Your task to perform on an android device: Show me popular games on the Play Store Image 0: 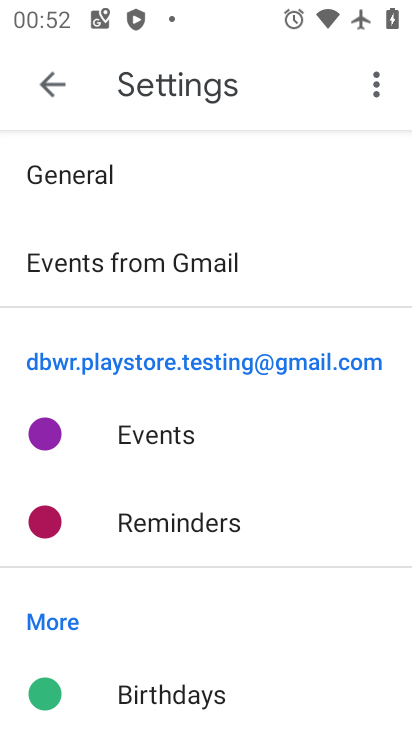
Step 0: press home button
Your task to perform on an android device: Show me popular games on the Play Store Image 1: 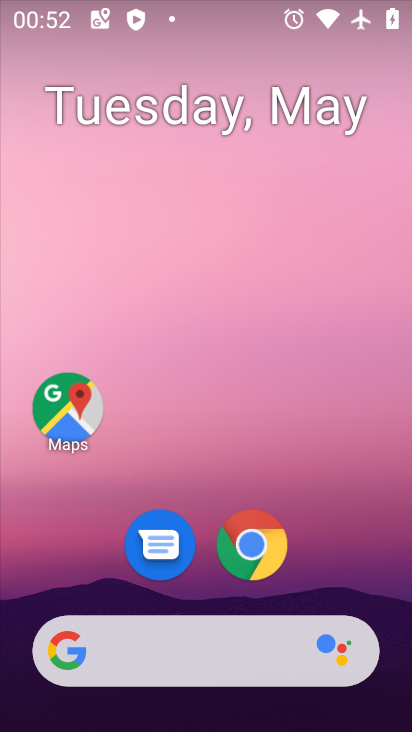
Step 1: drag from (333, 497) to (309, 0)
Your task to perform on an android device: Show me popular games on the Play Store Image 2: 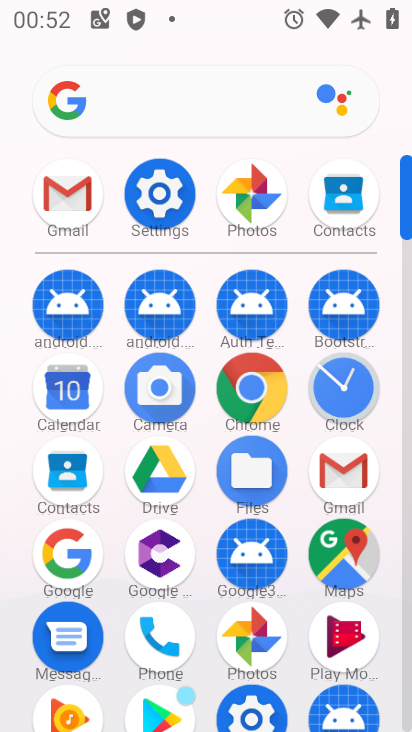
Step 2: click (170, 693)
Your task to perform on an android device: Show me popular games on the Play Store Image 3: 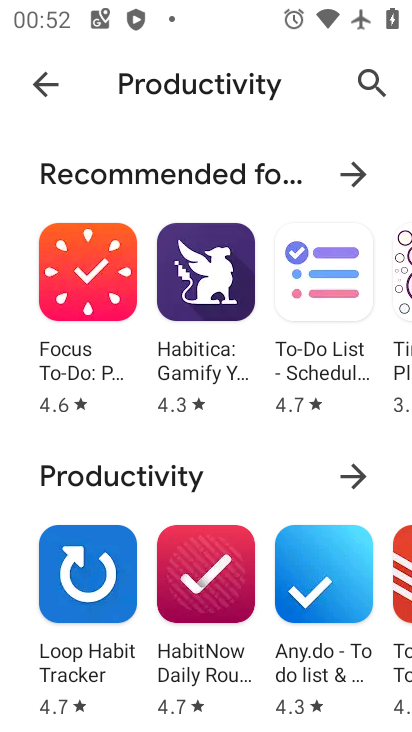
Step 3: click (49, 73)
Your task to perform on an android device: Show me popular games on the Play Store Image 4: 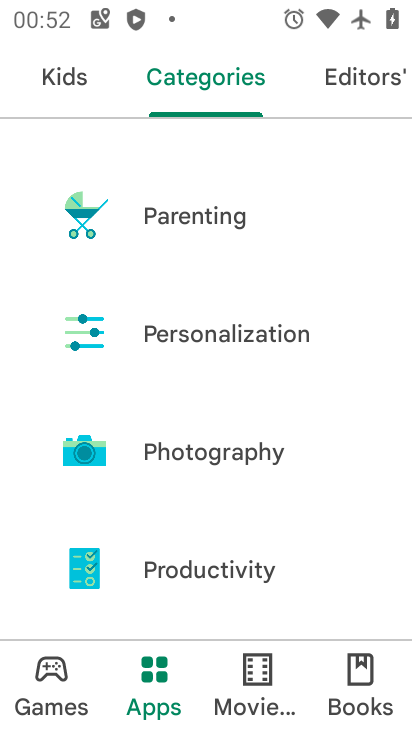
Step 4: drag from (186, 151) to (310, 645)
Your task to perform on an android device: Show me popular games on the Play Store Image 5: 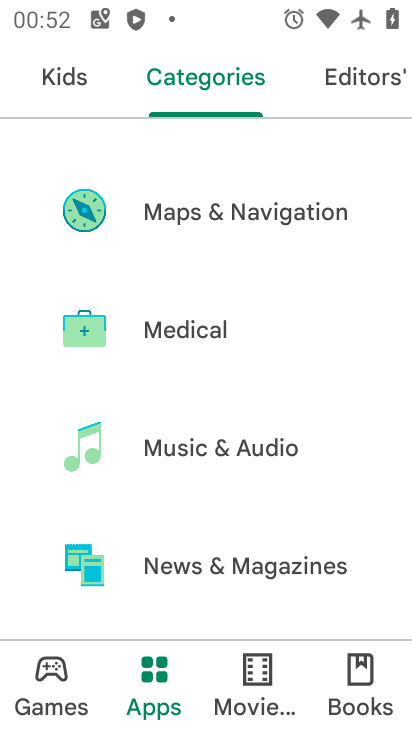
Step 5: drag from (274, 364) to (307, 730)
Your task to perform on an android device: Show me popular games on the Play Store Image 6: 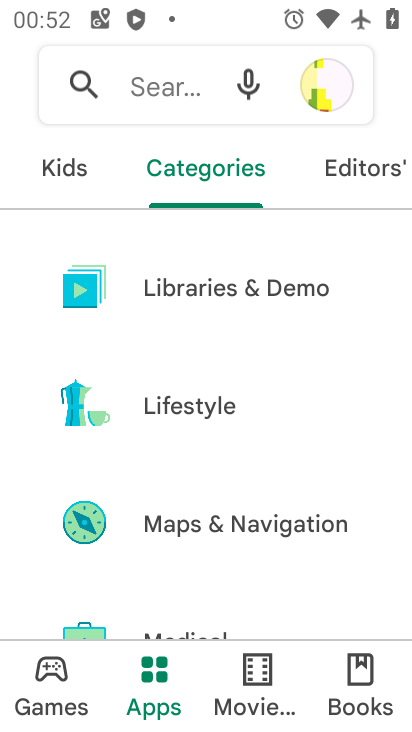
Step 6: drag from (256, 314) to (308, 592)
Your task to perform on an android device: Show me popular games on the Play Store Image 7: 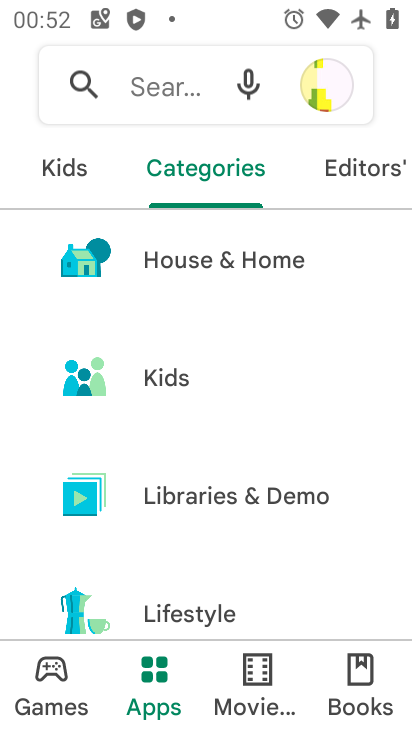
Step 7: drag from (176, 262) to (218, 505)
Your task to perform on an android device: Show me popular games on the Play Store Image 8: 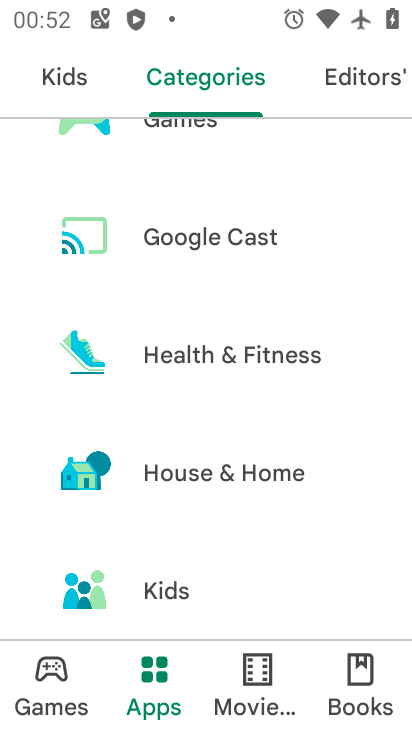
Step 8: drag from (190, 299) to (191, 578)
Your task to perform on an android device: Show me popular games on the Play Store Image 9: 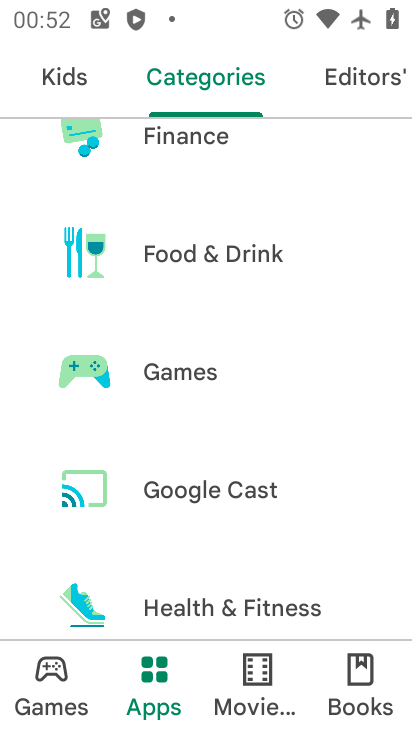
Step 9: click (200, 386)
Your task to perform on an android device: Show me popular games on the Play Store Image 10: 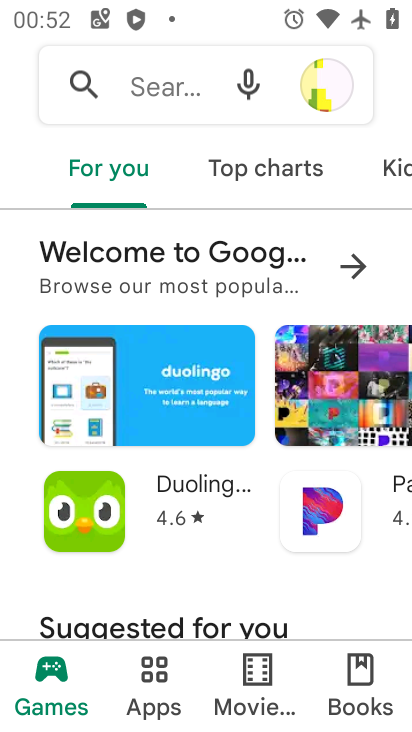
Step 10: task complete